Your task to perform on an android device: Open ESPN.com Image 0: 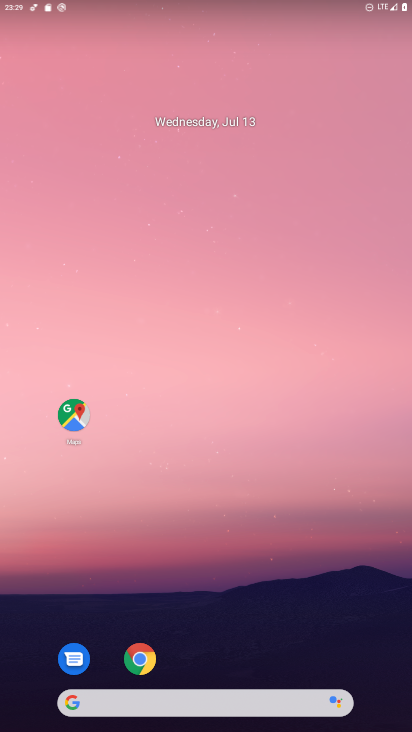
Step 0: click (142, 660)
Your task to perform on an android device: Open ESPN.com Image 1: 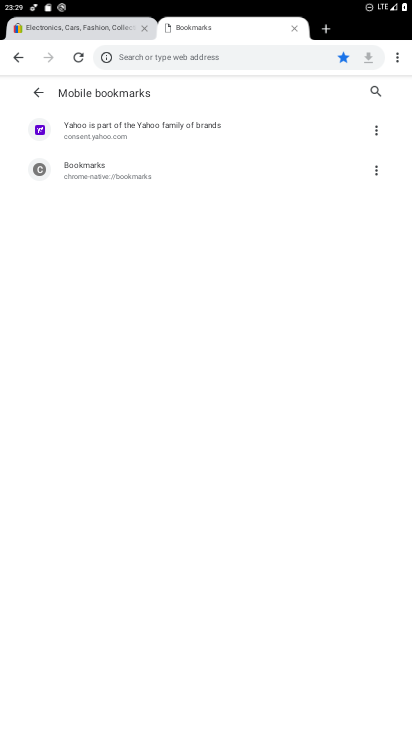
Step 1: click (177, 56)
Your task to perform on an android device: Open ESPN.com Image 2: 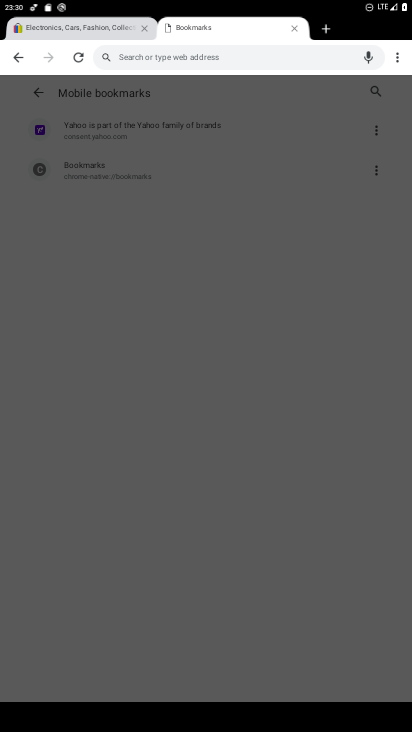
Step 2: type "ESPN.com"
Your task to perform on an android device: Open ESPN.com Image 3: 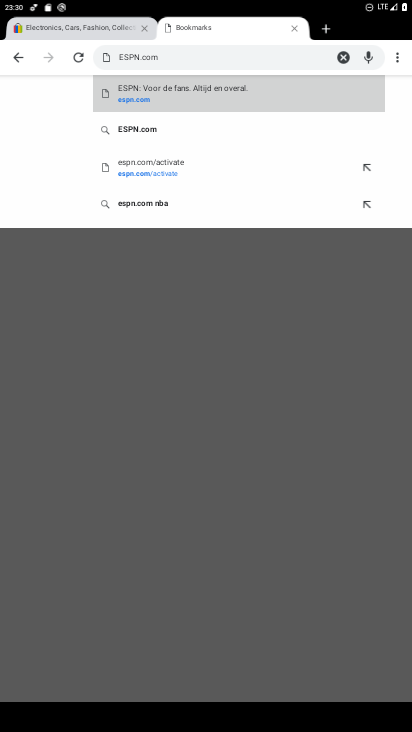
Step 3: click (123, 83)
Your task to perform on an android device: Open ESPN.com Image 4: 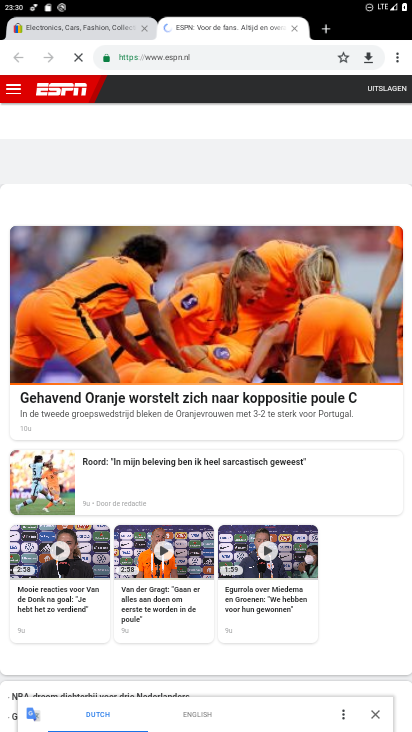
Step 4: task complete